Your task to perform on an android device: Open the Play Movies app and select the watchlist tab. Image 0: 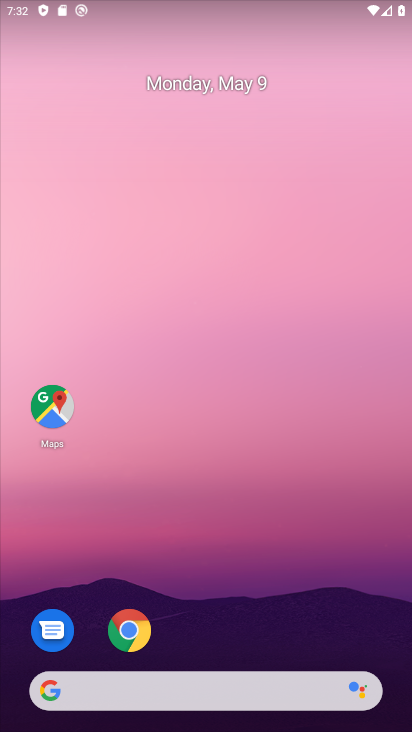
Step 0: drag from (381, 623) to (371, 129)
Your task to perform on an android device: Open the Play Movies app and select the watchlist tab. Image 1: 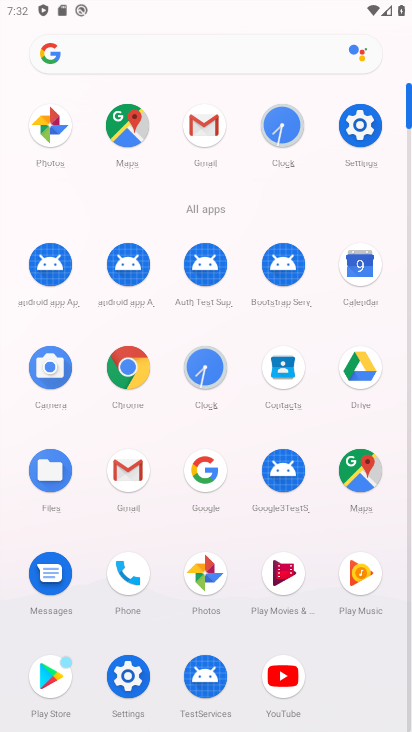
Step 1: click (277, 576)
Your task to perform on an android device: Open the Play Movies app and select the watchlist tab. Image 2: 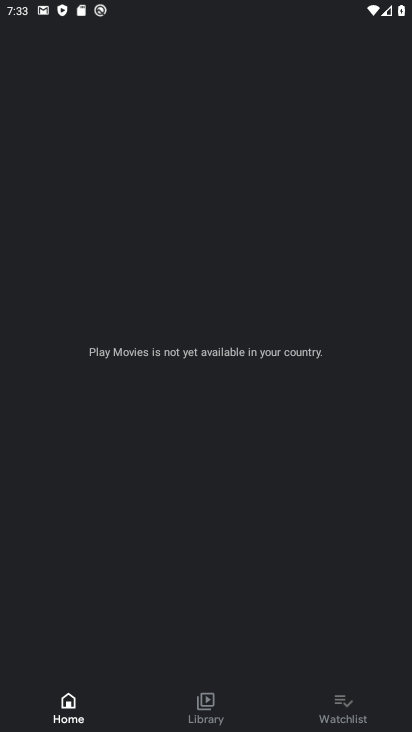
Step 2: click (334, 717)
Your task to perform on an android device: Open the Play Movies app and select the watchlist tab. Image 3: 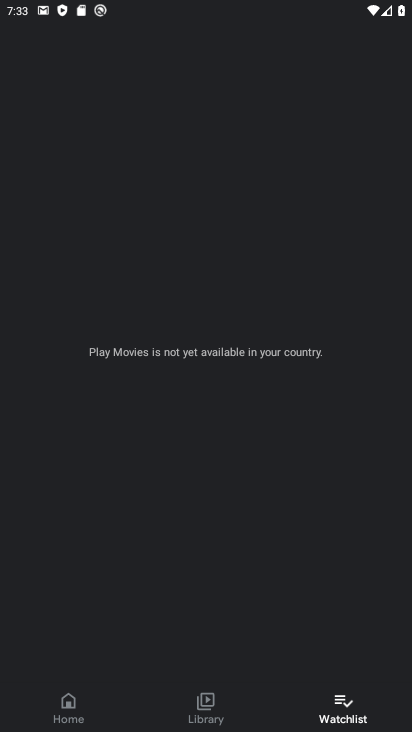
Step 3: task complete